Your task to perform on an android device: Go to notification settings Image 0: 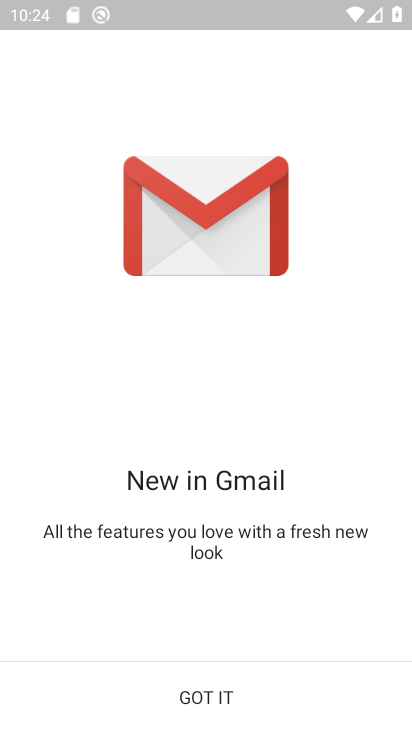
Step 0: press home button
Your task to perform on an android device: Go to notification settings Image 1: 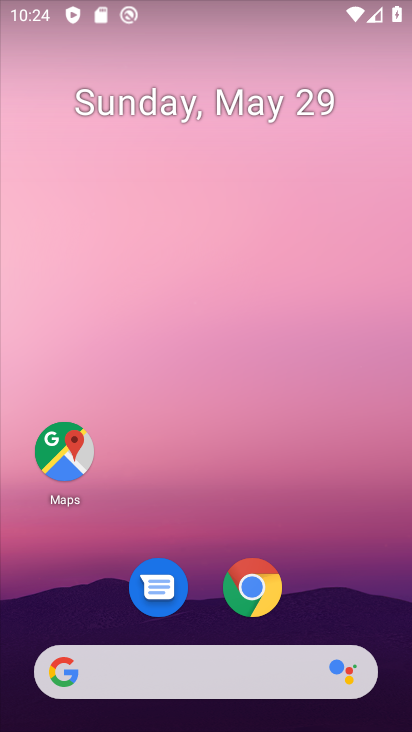
Step 1: drag from (378, 607) to (294, 140)
Your task to perform on an android device: Go to notification settings Image 2: 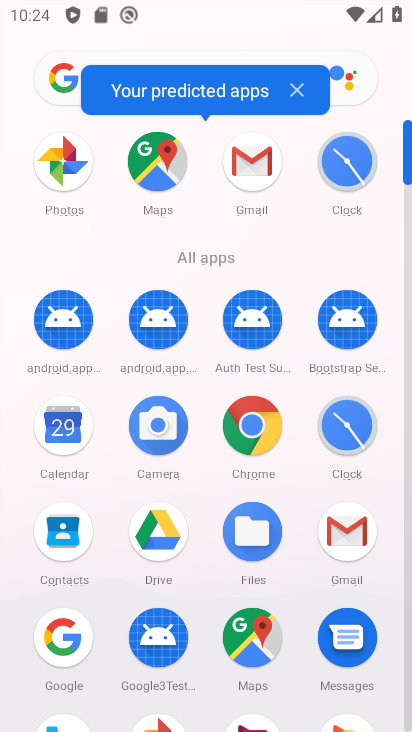
Step 2: click (411, 687)
Your task to perform on an android device: Go to notification settings Image 3: 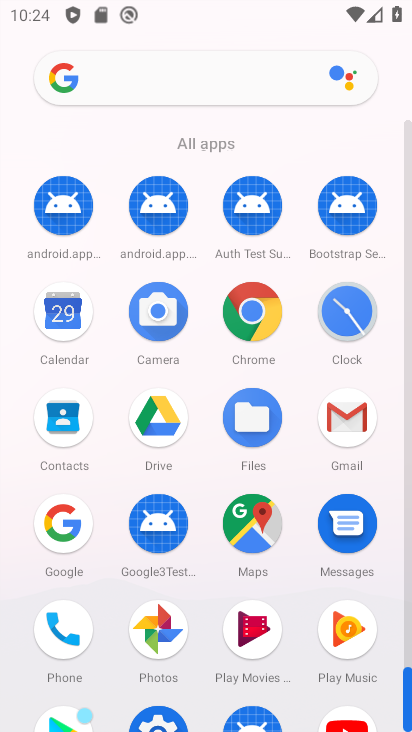
Step 3: click (172, 717)
Your task to perform on an android device: Go to notification settings Image 4: 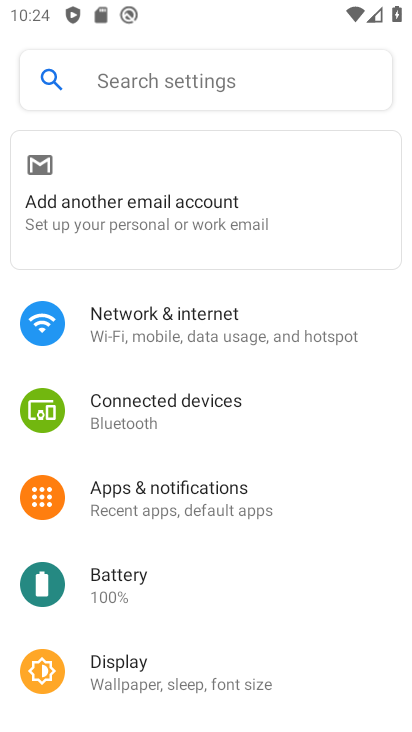
Step 4: click (253, 504)
Your task to perform on an android device: Go to notification settings Image 5: 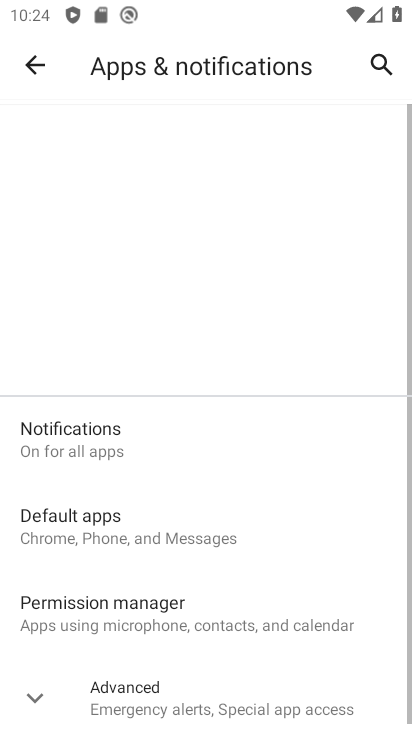
Step 5: click (220, 446)
Your task to perform on an android device: Go to notification settings Image 6: 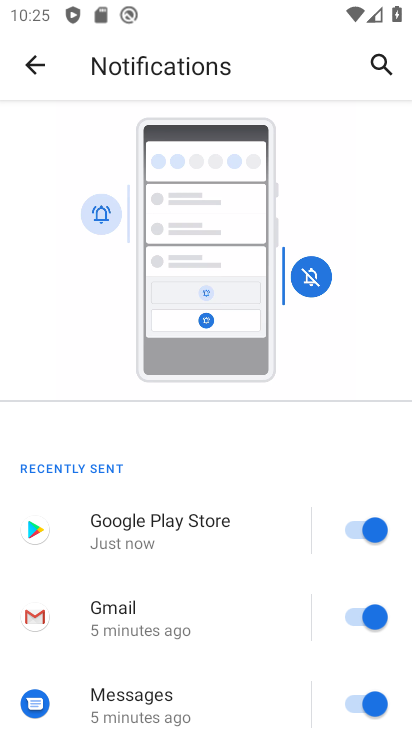
Step 6: task complete